Your task to perform on an android device: see creations saved in the google photos Image 0: 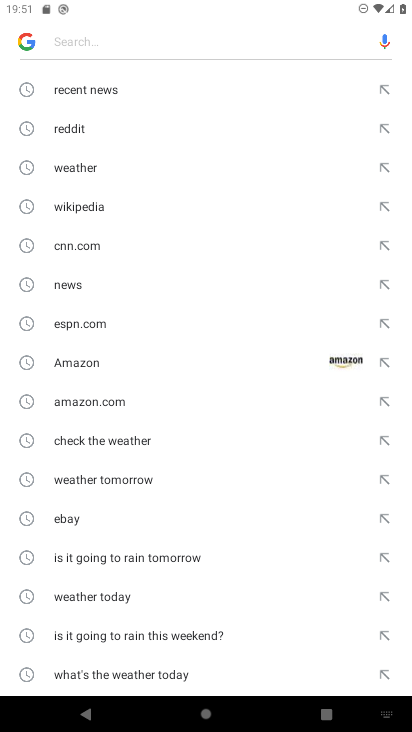
Step 0: press home button
Your task to perform on an android device: see creations saved in the google photos Image 1: 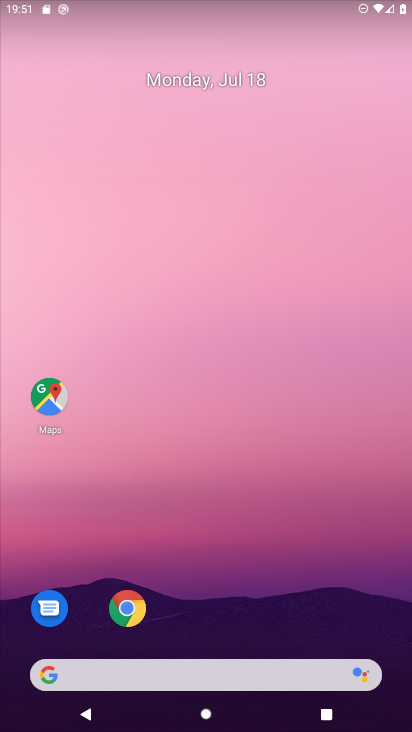
Step 1: drag from (236, 621) to (264, 7)
Your task to perform on an android device: see creations saved in the google photos Image 2: 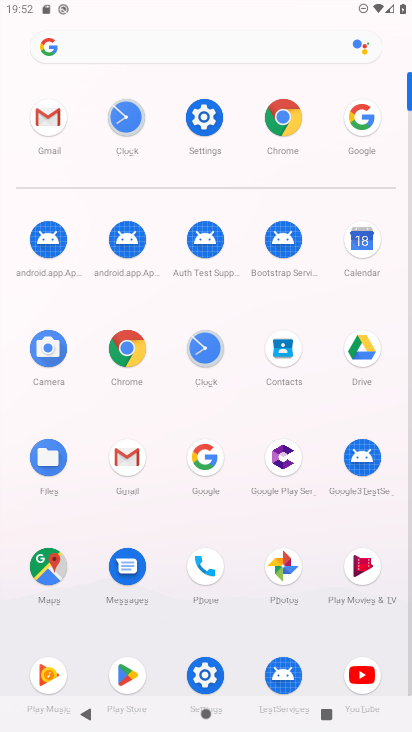
Step 2: click (282, 564)
Your task to perform on an android device: see creations saved in the google photos Image 3: 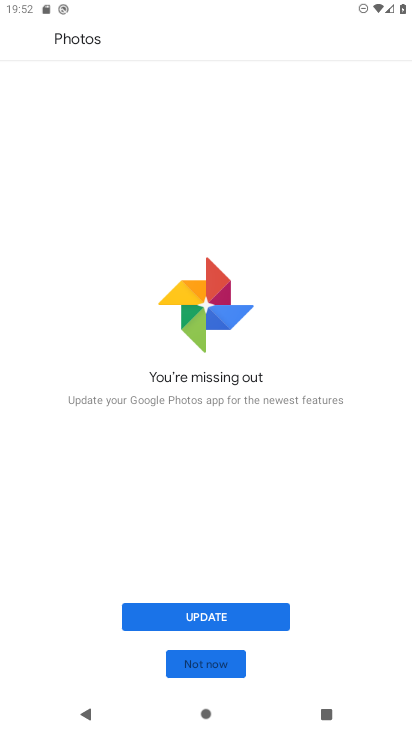
Step 3: click (211, 618)
Your task to perform on an android device: see creations saved in the google photos Image 4: 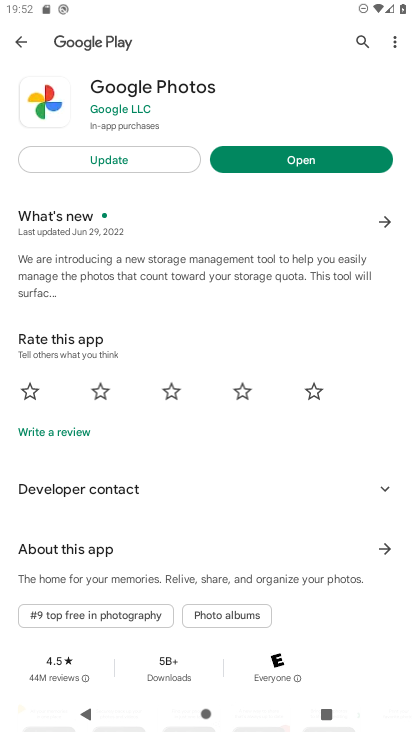
Step 4: click (170, 161)
Your task to perform on an android device: see creations saved in the google photos Image 5: 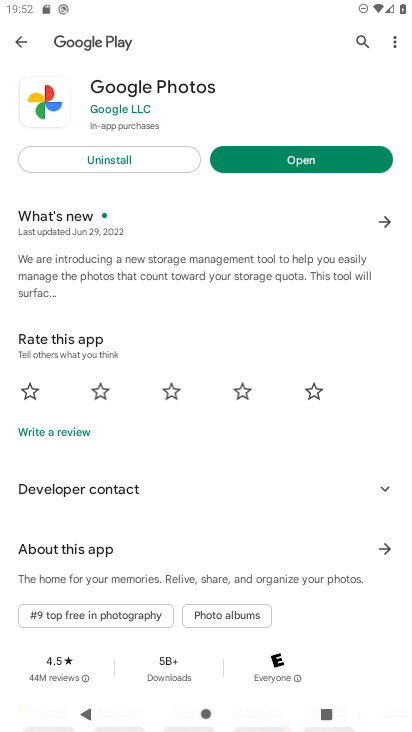
Step 5: click (280, 157)
Your task to perform on an android device: see creations saved in the google photos Image 6: 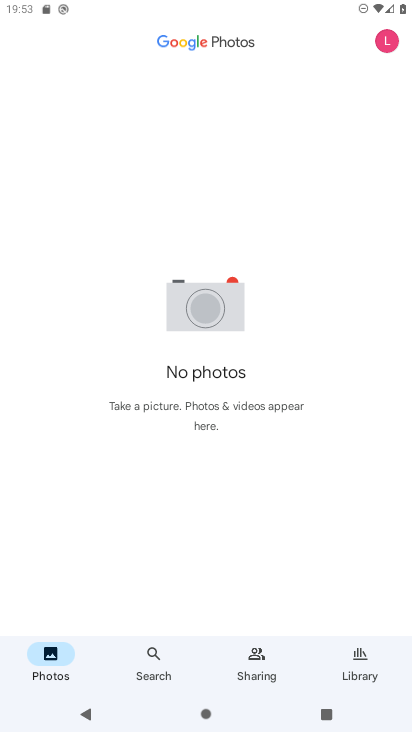
Step 6: click (153, 655)
Your task to perform on an android device: see creations saved in the google photos Image 7: 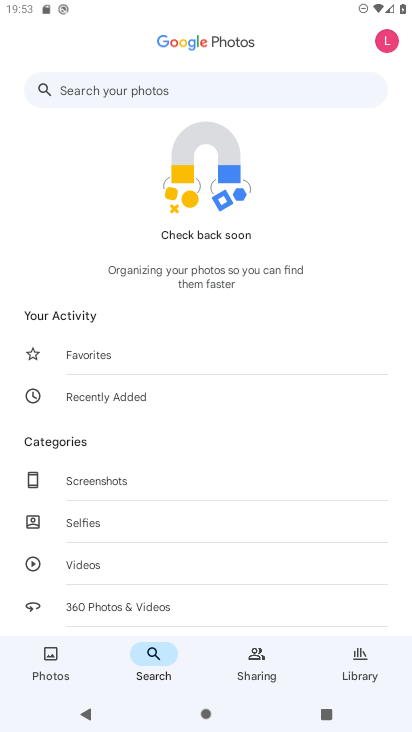
Step 7: drag from (100, 534) to (102, 244)
Your task to perform on an android device: see creations saved in the google photos Image 8: 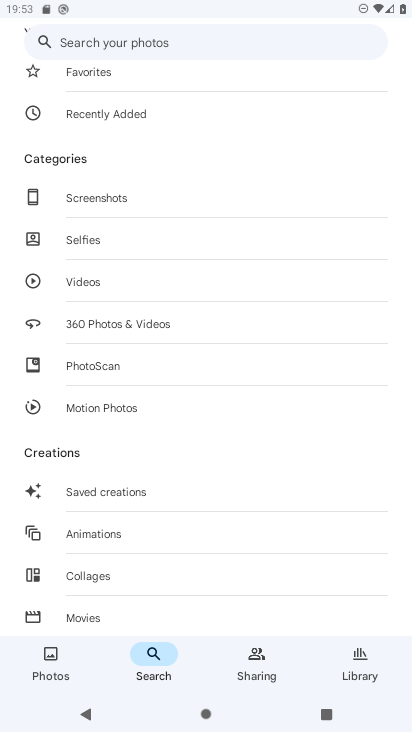
Step 8: click (100, 494)
Your task to perform on an android device: see creations saved in the google photos Image 9: 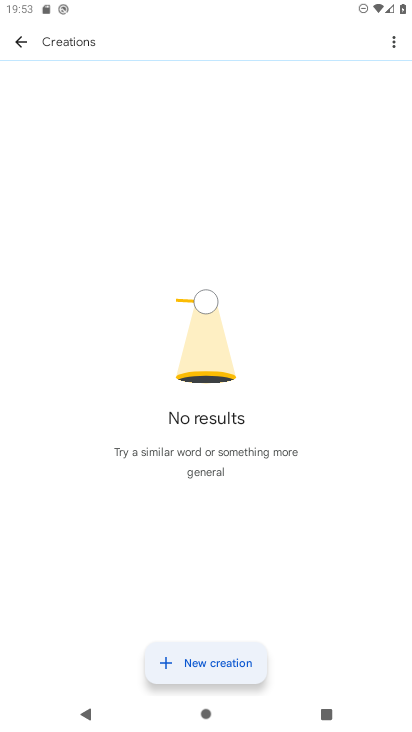
Step 9: task complete